Your task to perform on an android device: turn on wifi Image 0: 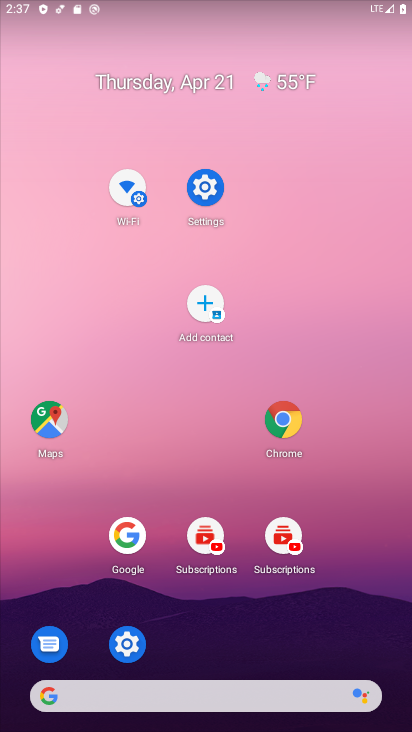
Step 0: drag from (255, 653) to (124, 69)
Your task to perform on an android device: turn on wifi Image 1: 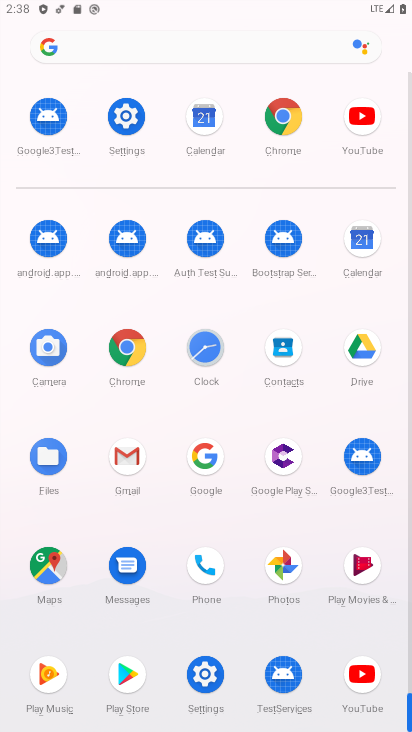
Step 1: click (124, 129)
Your task to perform on an android device: turn on wifi Image 2: 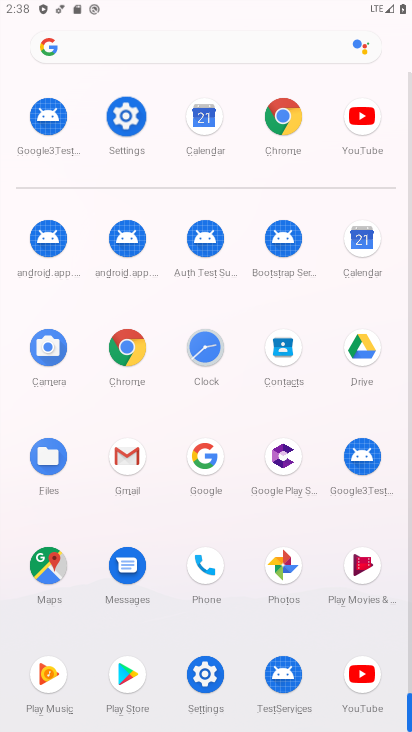
Step 2: click (125, 128)
Your task to perform on an android device: turn on wifi Image 3: 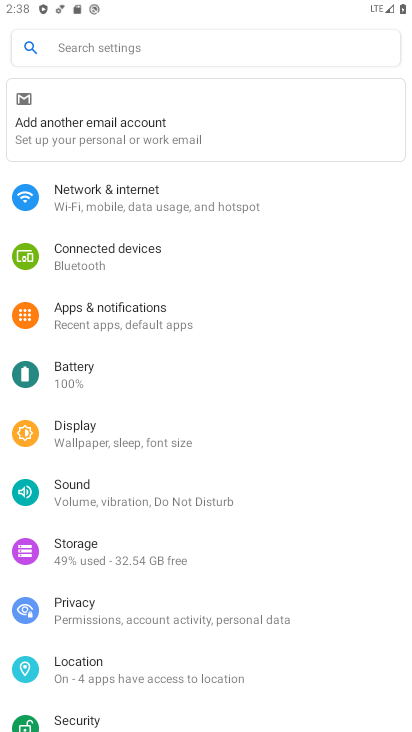
Step 3: click (153, 202)
Your task to perform on an android device: turn on wifi Image 4: 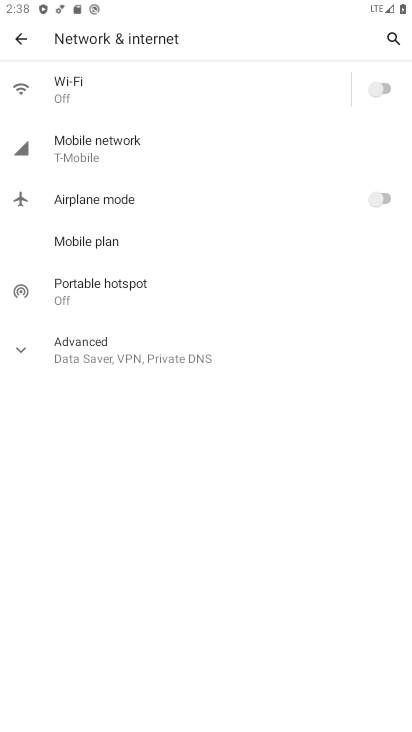
Step 4: click (370, 88)
Your task to perform on an android device: turn on wifi Image 5: 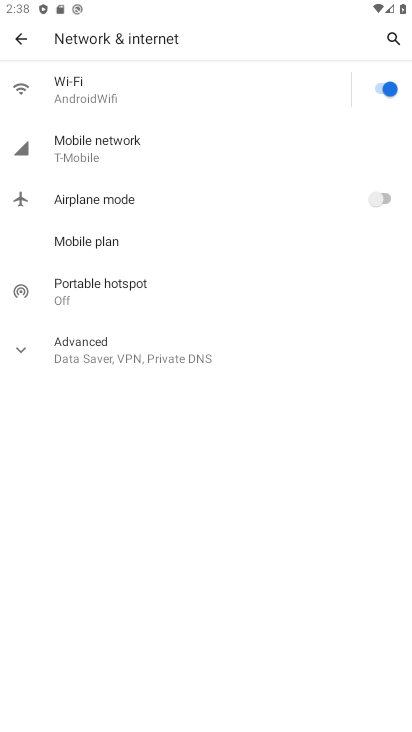
Step 5: task complete